Your task to perform on an android device: turn off notifications in google photos Image 0: 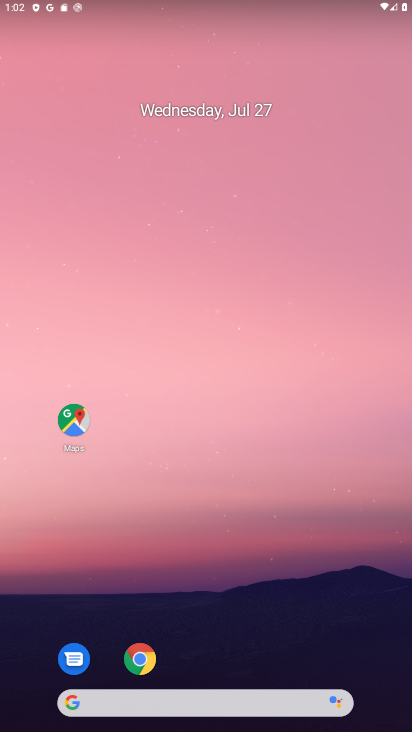
Step 0: drag from (300, 592) to (198, 145)
Your task to perform on an android device: turn off notifications in google photos Image 1: 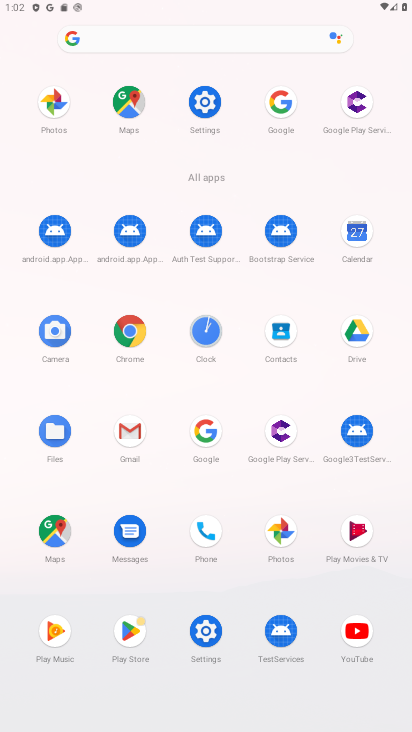
Step 1: click (277, 524)
Your task to perform on an android device: turn off notifications in google photos Image 2: 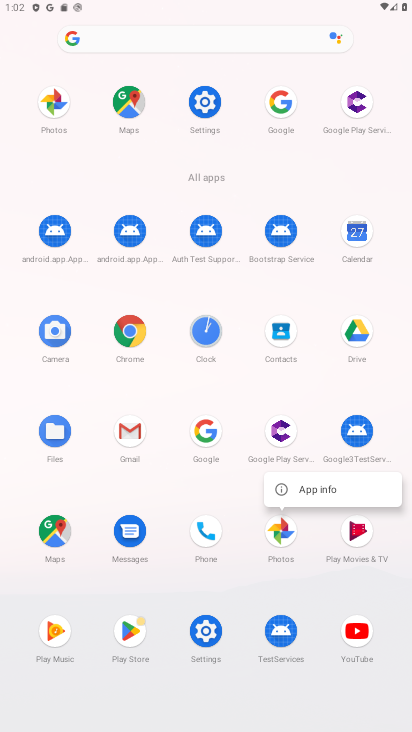
Step 2: click (304, 495)
Your task to perform on an android device: turn off notifications in google photos Image 3: 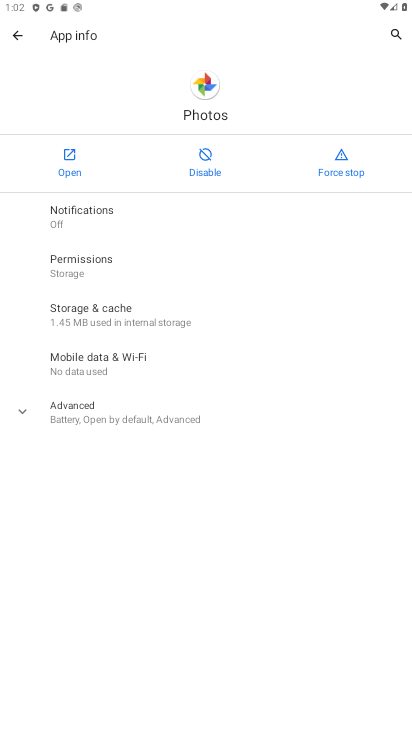
Step 3: click (62, 404)
Your task to perform on an android device: turn off notifications in google photos Image 4: 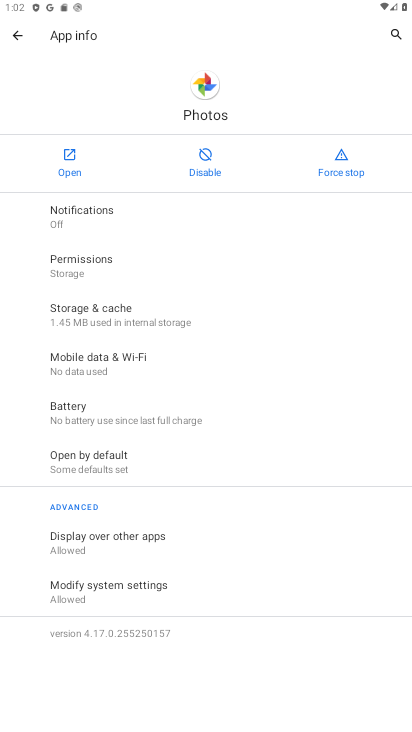
Step 4: click (202, 196)
Your task to perform on an android device: turn off notifications in google photos Image 5: 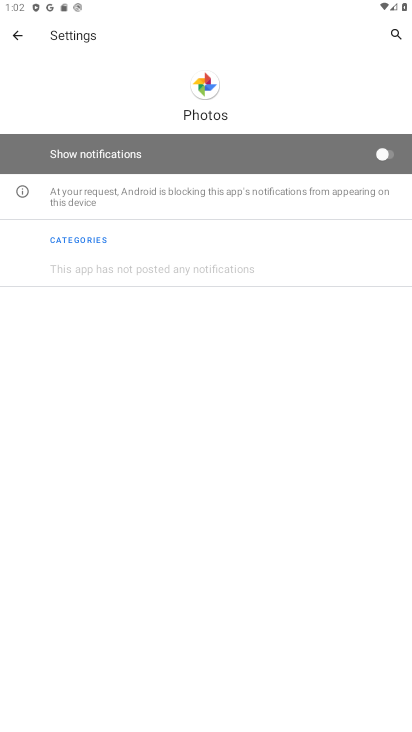
Step 5: task complete